Your task to perform on an android device: open wifi settings Image 0: 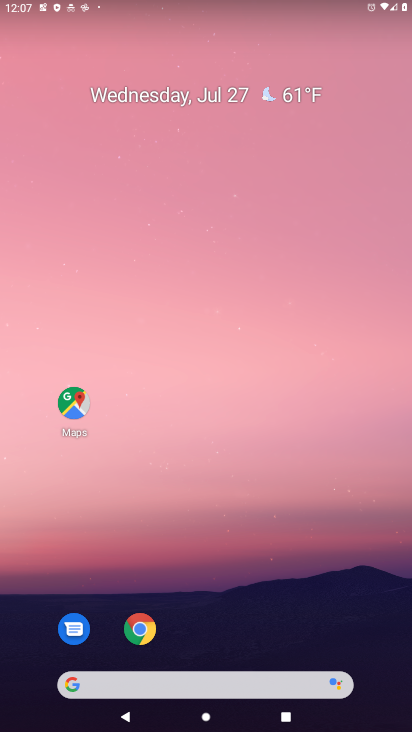
Step 0: drag from (249, 651) to (215, 130)
Your task to perform on an android device: open wifi settings Image 1: 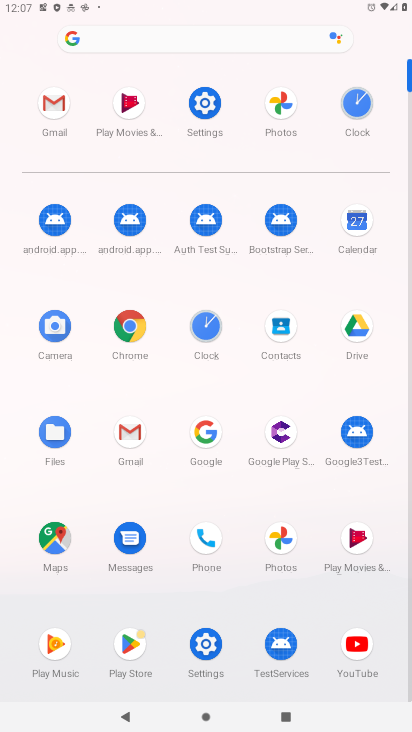
Step 1: click (206, 109)
Your task to perform on an android device: open wifi settings Image 2: 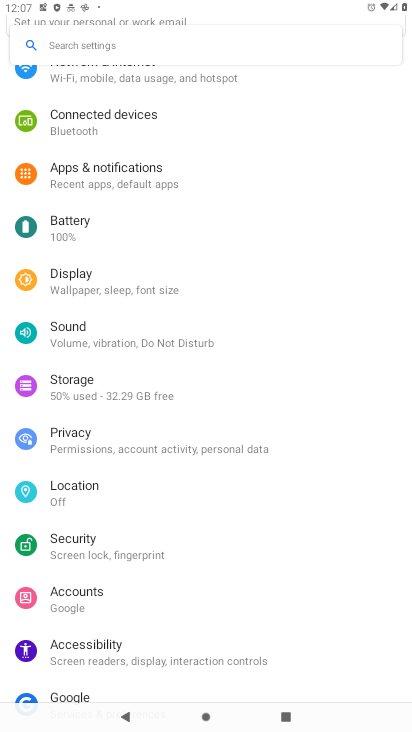
Step 2: click (206, 91)
Your task to perform on an android device: open wifi settings Image 3: 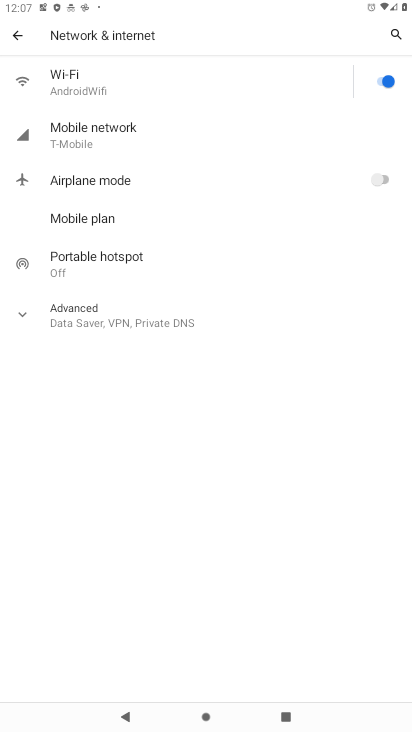
Step 3: task complete